Your task to perform on an android device: toggle notifications settings in the gmail app Image 0: 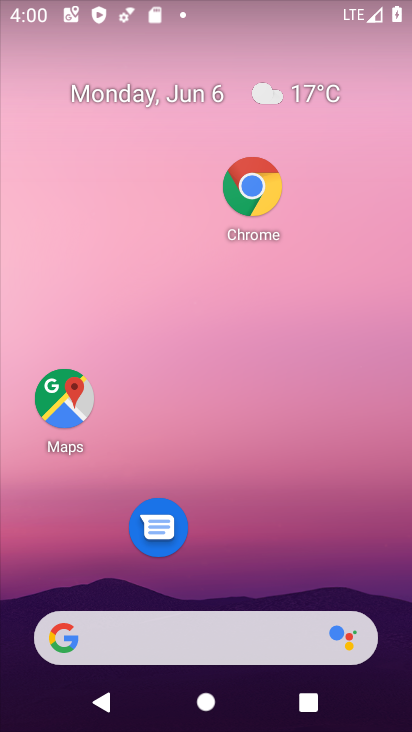
Step 0: drag from (147, 592) to (204, 184)
Your task to perform on an android device: toggle notifications settings in the gmail app Image 1: 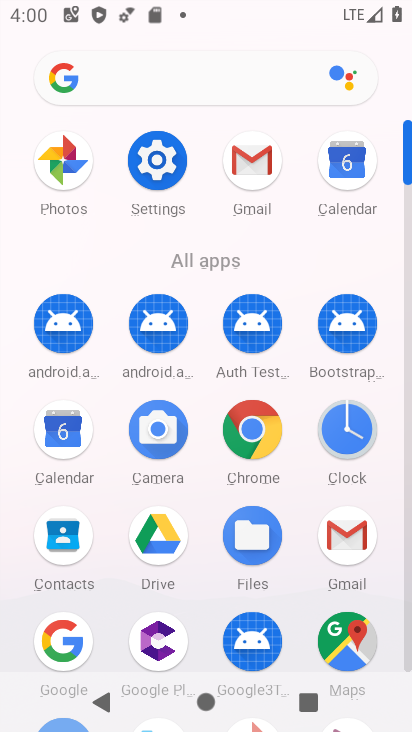
Step 1: click (345, 562)
Your task to perform on an android device: toggle notifications settings in the gmail app Image 2: 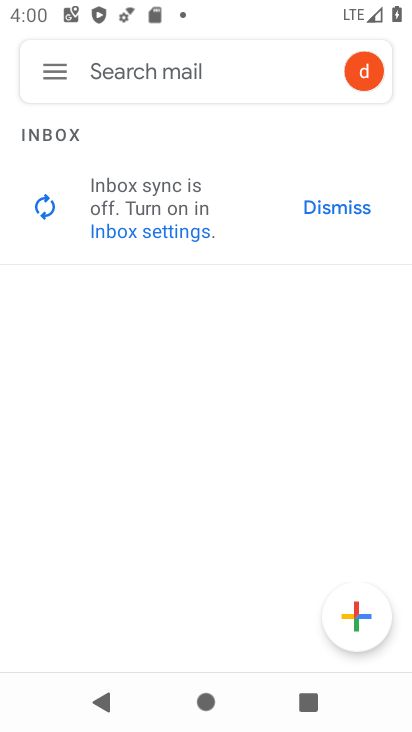
Step 2: task complete